Your task to perform on an android device: Open the web browser Image 0: 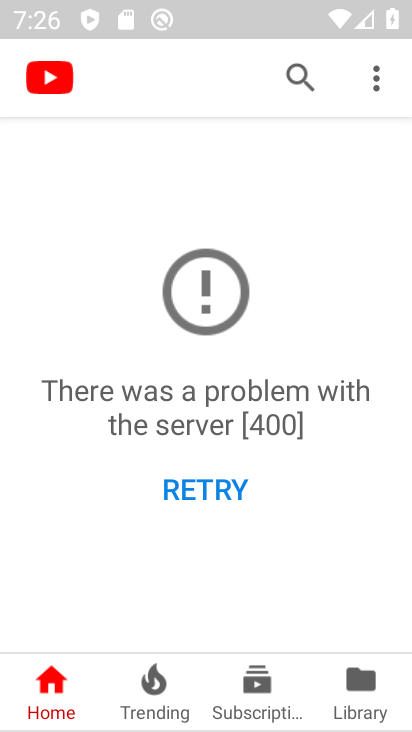
Step 0: press home button
Your task to perform on an android device: Open the web browser Image 1: 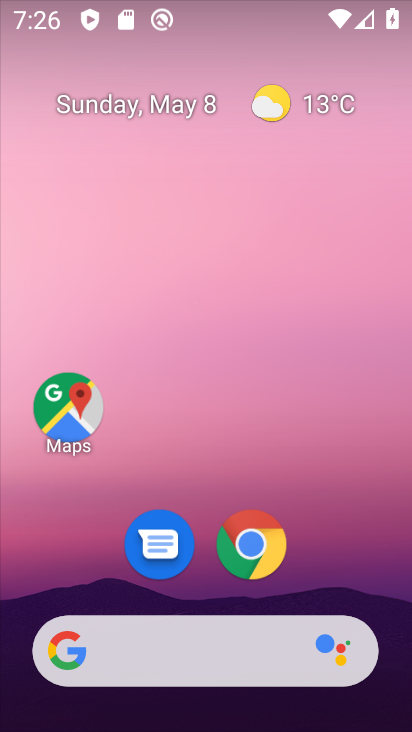
Step 1: click (255, 548)
Your task to perform on an android device: Open the web browser Image 2: 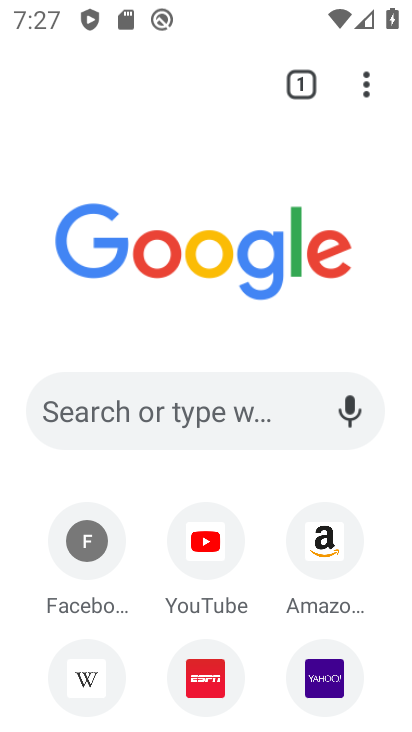
Step 2: task complete